Your task to perform on an android device: check data usage Image 0: 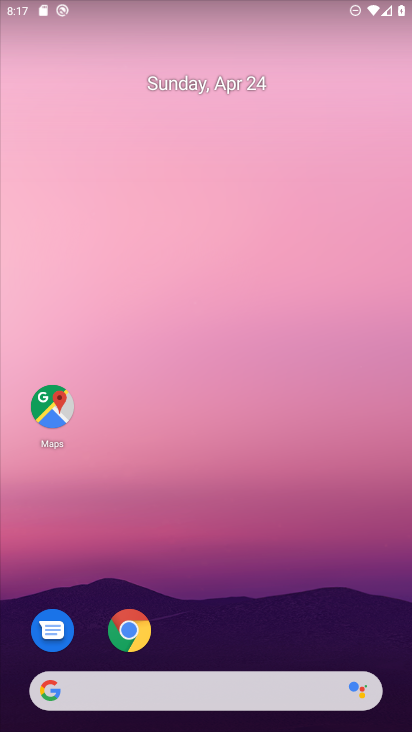
Step 0: drag from (234, 0) to (195, 594)
Your task to perform on an android device: check data usage Image 1: 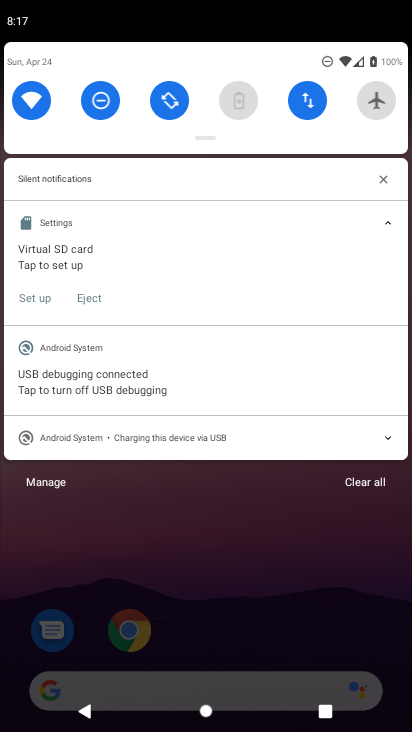
Step 1: click (310, 98)
Your task to perform on an android device: check data usage Image 2: 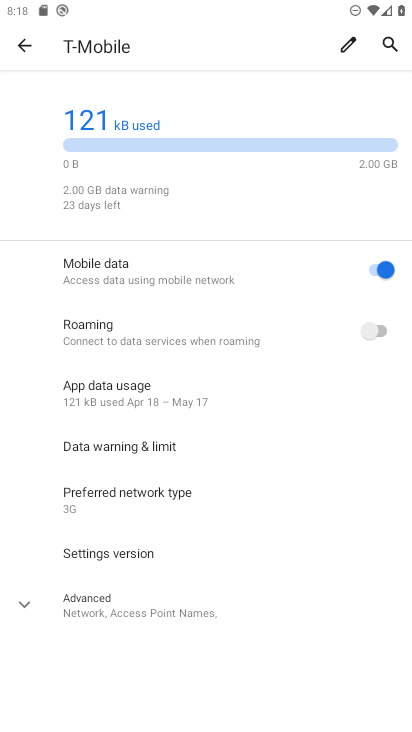
Step 2: task complete